Your task to perform on an android device: Do I have any events today? Image 0: 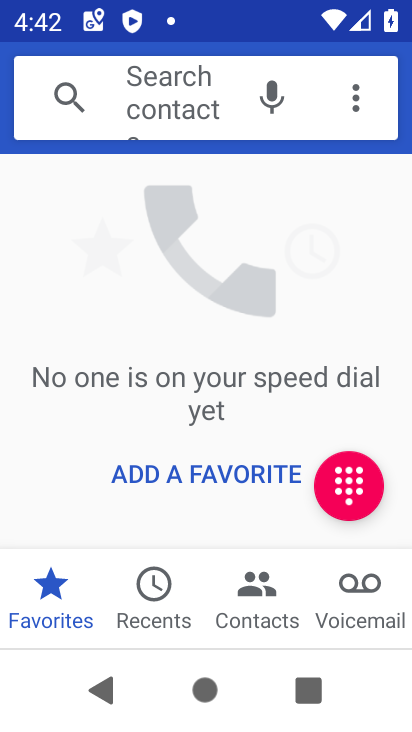
Step 0: press home button
Your task to perform on an android device: Do I have any events today? Image 1: 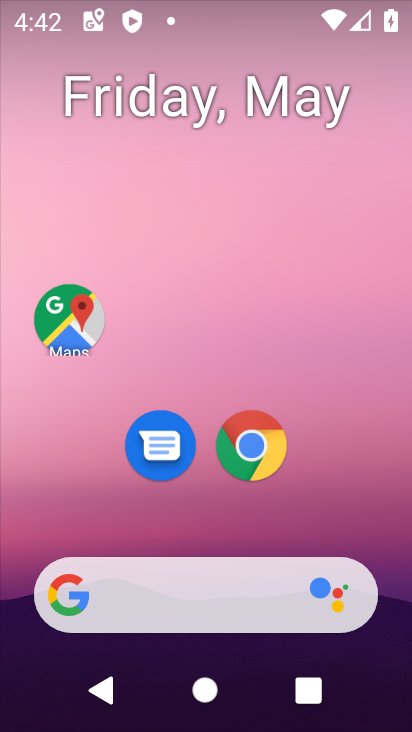
Step 1: drag from (358, 462) to (310, 110)
Your task to perform on an android device: Do I have any events today? Image 2: 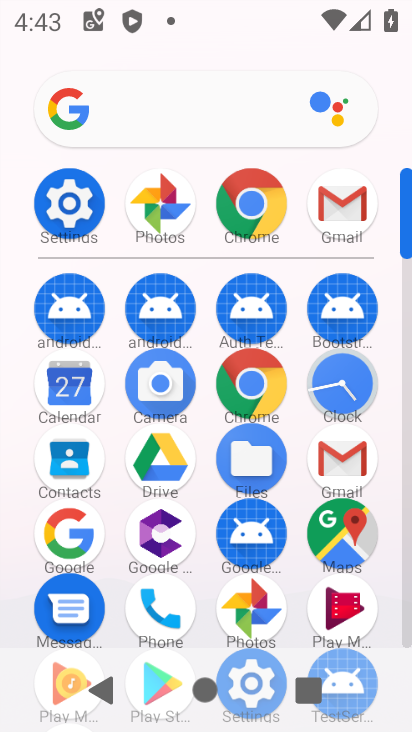
Step 2: click (57, 387)
Your task to perform on an android device: Do I have any events today? Image 3: 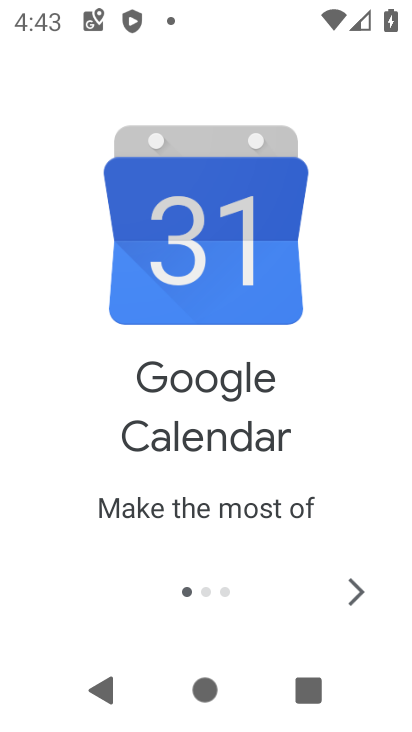
Step 3: click (349, 586)
Your task to perform on an android device: Do I have any events today? Image 4: 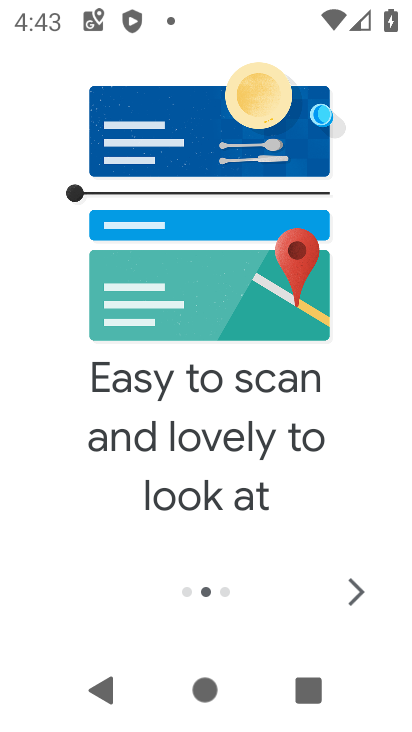
Step 4: click (349, 586)
Your task to perform on an android device: Do I have any events today? Image 5: 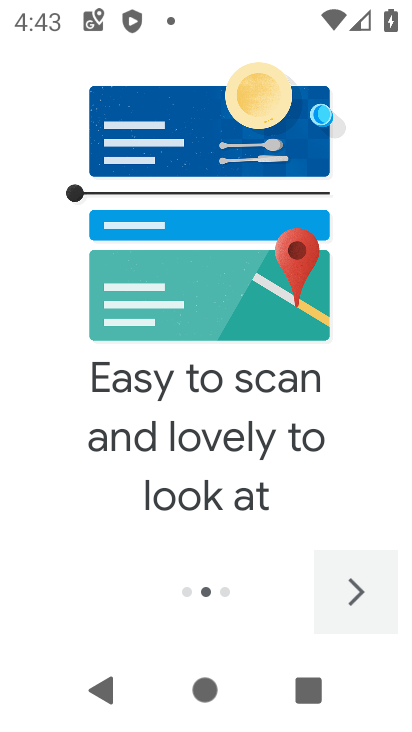
Step 5: click (349, 586)
Your task to perform on an android device: Do I have any events today? Image 6: 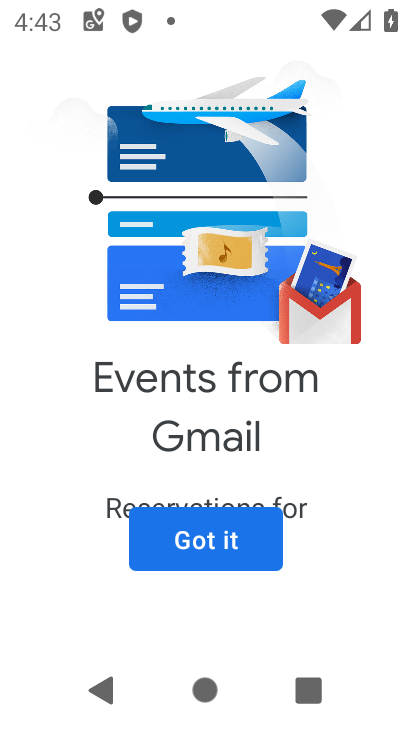
Step 6: click (159, 531)
Your task to perform on an android device: Do I have any events today? Image 7: 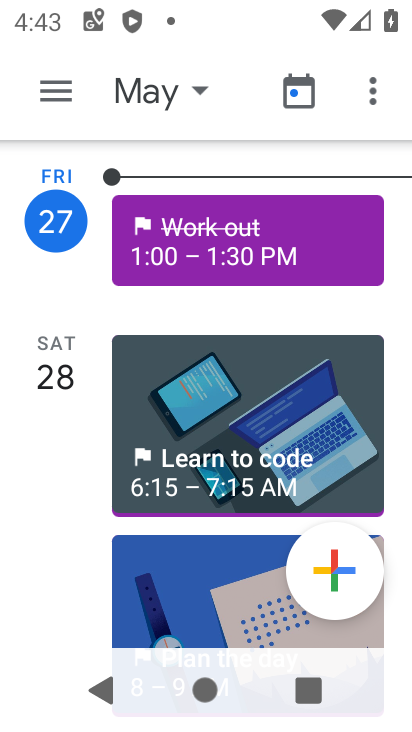
Step 7: click (47, 90)
Your task to perform on an android device: Do I have any events today? Image 8: 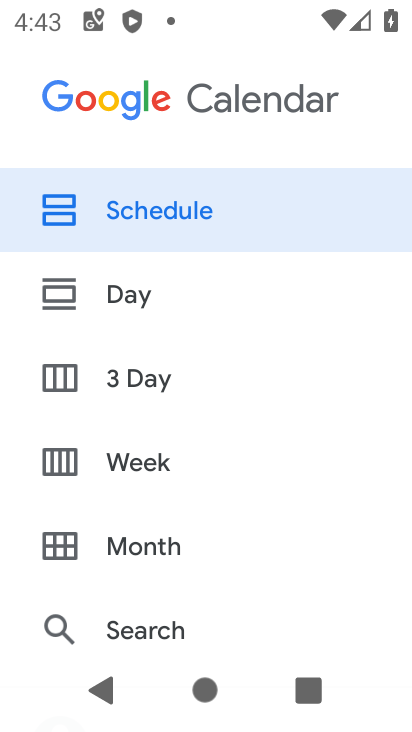
Step 8: drag from (290, 585) to (235, 167)
Your task to perform on an android device: Do I have any events today? Image 9: 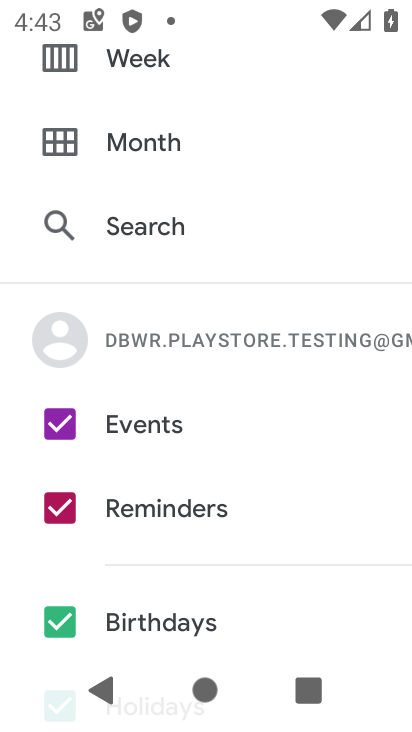
Step 9: drag from (235, 166) to (275, 510)
Your task to perform on an android device: Do I have any events today? Image 10: 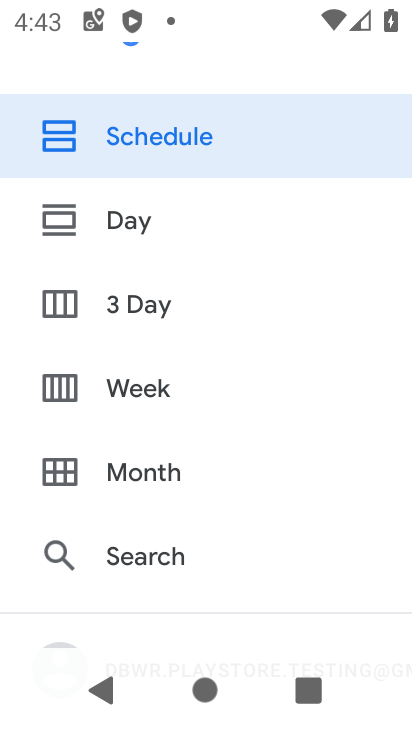
Step 10: click (225, 114)
Your task to perform on an android device: Do I have any events today? Image 11: 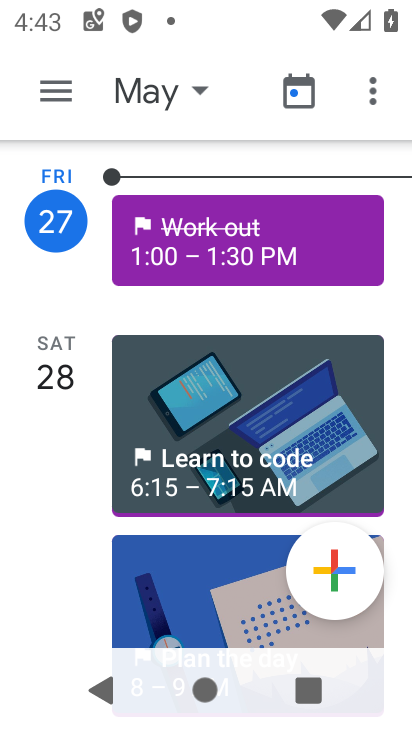
Step 11: task complete